Your task to perform on an android device: Open the calendar app, open the side menu, and click the "Day" option Image 0: 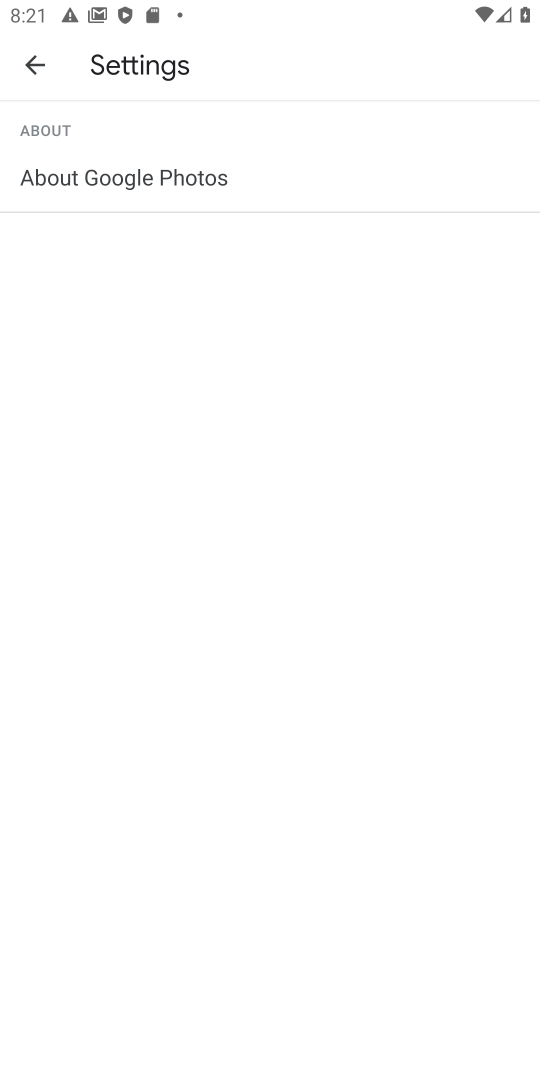
Step 0: press home button
Your task to perform on an android device: Open the calendar app, open the side menu, and click the "Day" option Image 1: 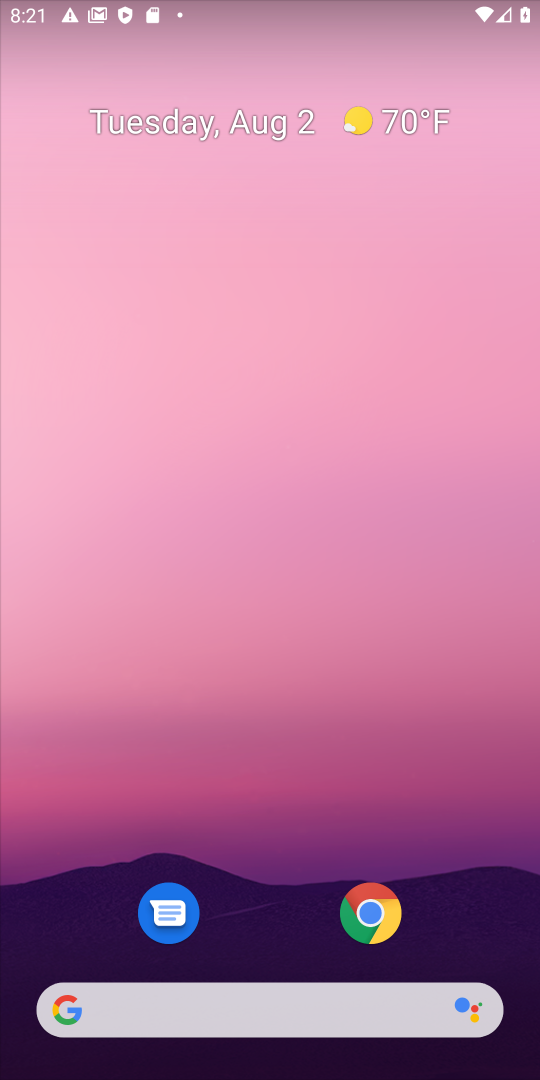
Step 1: drag from (294, 842) to (284, 399)
Your task to perform on an android device: Open the calendar app, open the side menu, and click the "Day" option Image 2: 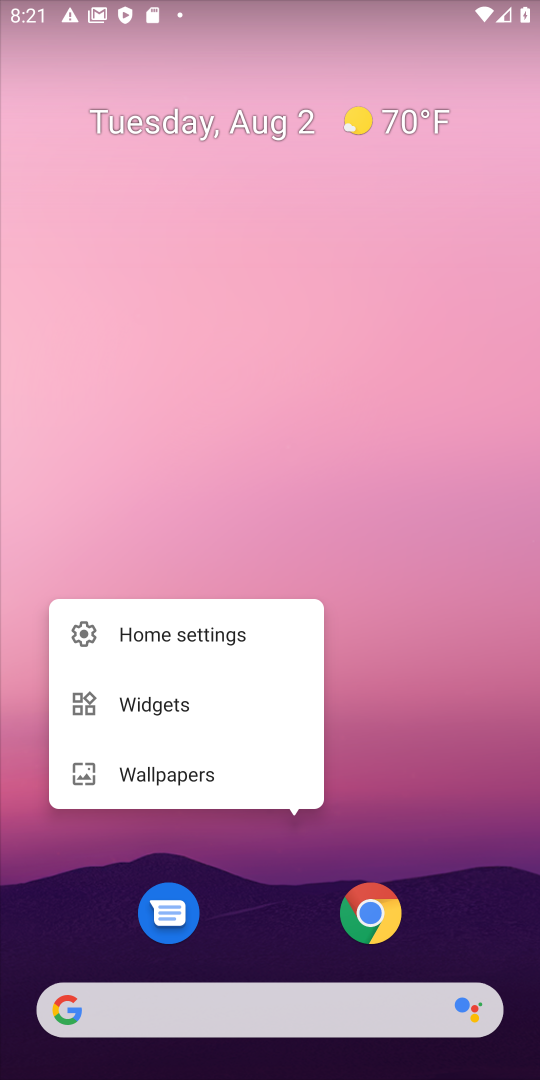
Step 2: click (284, 399)
Your task to perform on an android device: Open the calendar app, open the side menu, and click the "Day" option Image 3: 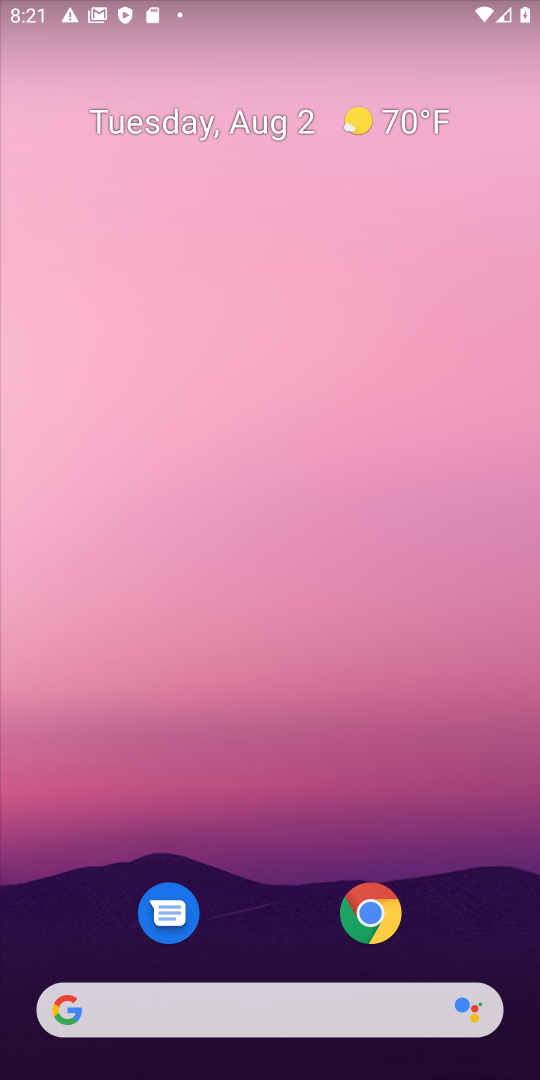
Step 3: click (427, 690)
Your task to perform on an android device: Open the calendar app, open the side menu, and click the "Day" option Image 4: 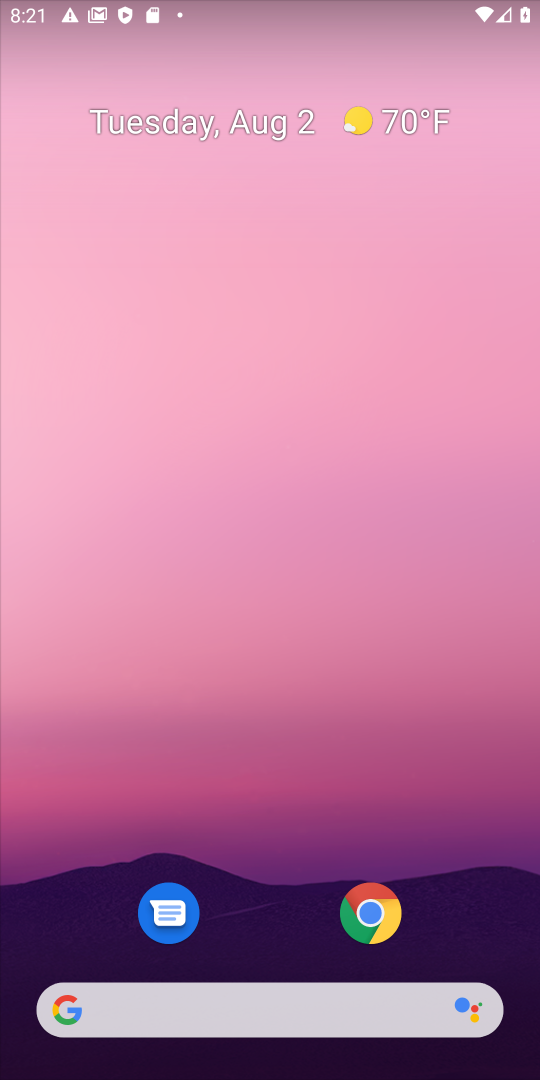
Step 4: drag from (258, 783) to (335, 351)
Your task to perform on an android device: Open the calendar app, open the side menu, and click the "Day" option Image 5: 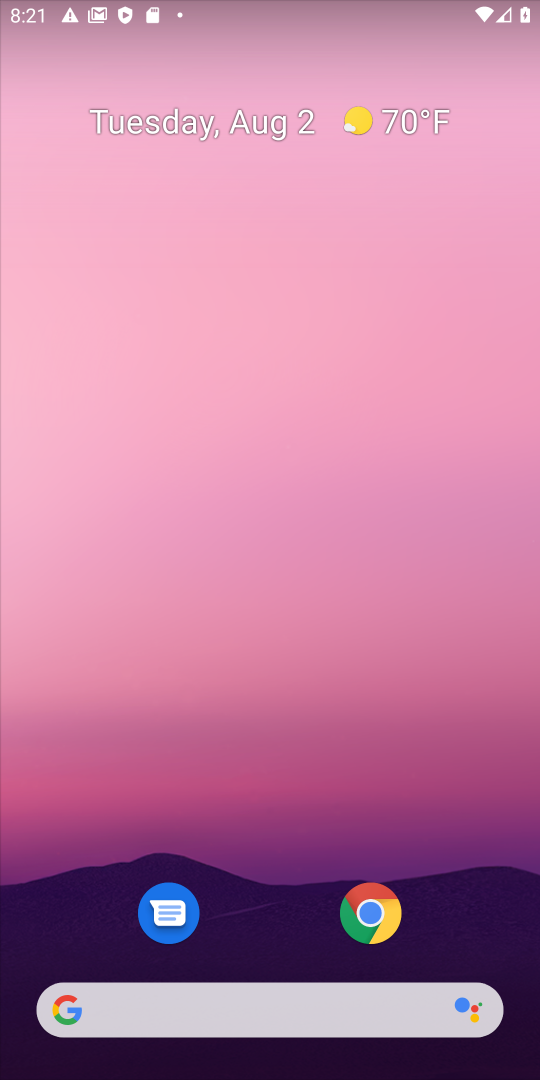
Step 5: drag from (260, 868) to (275, 458)
Your task to perform on an android device: Open the calendar app, open the side menu, and click the "Day" option Image 6: 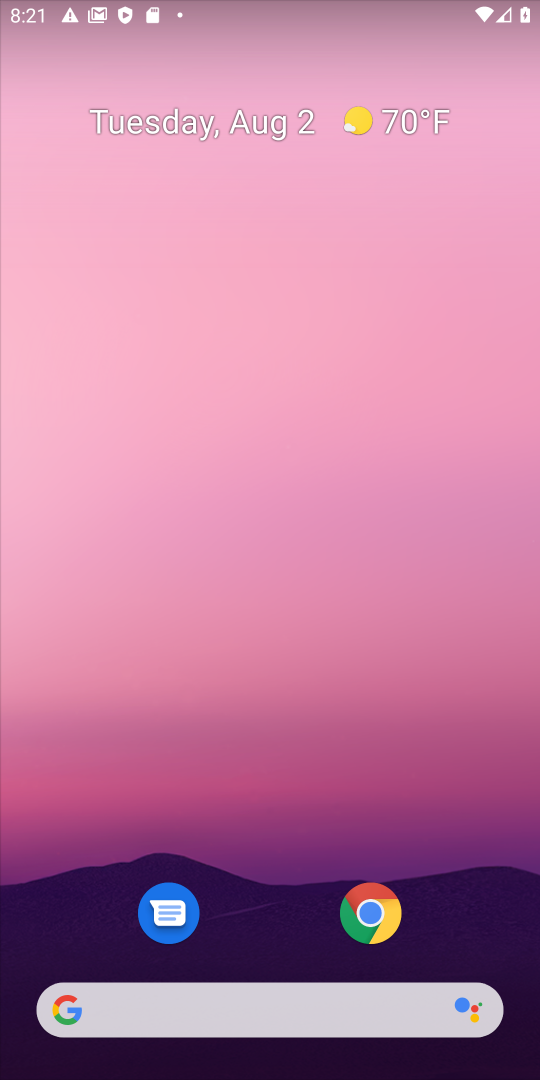
Step 6: drag from (275, 458) to (282, 162)
Your task to perform on an android device: Open the calendar app, open the side menu, and click the "Day" option Image 7: 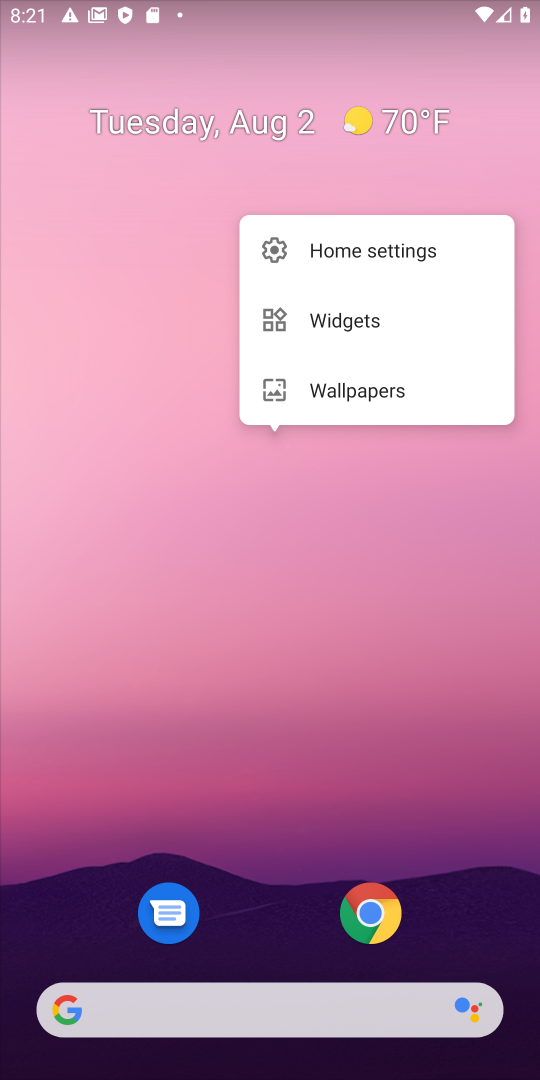
Step 7: click (277, 897)
Your task to perform on an android device: Open the calendar app, open the side menu, and click the "Day" option Image 8: 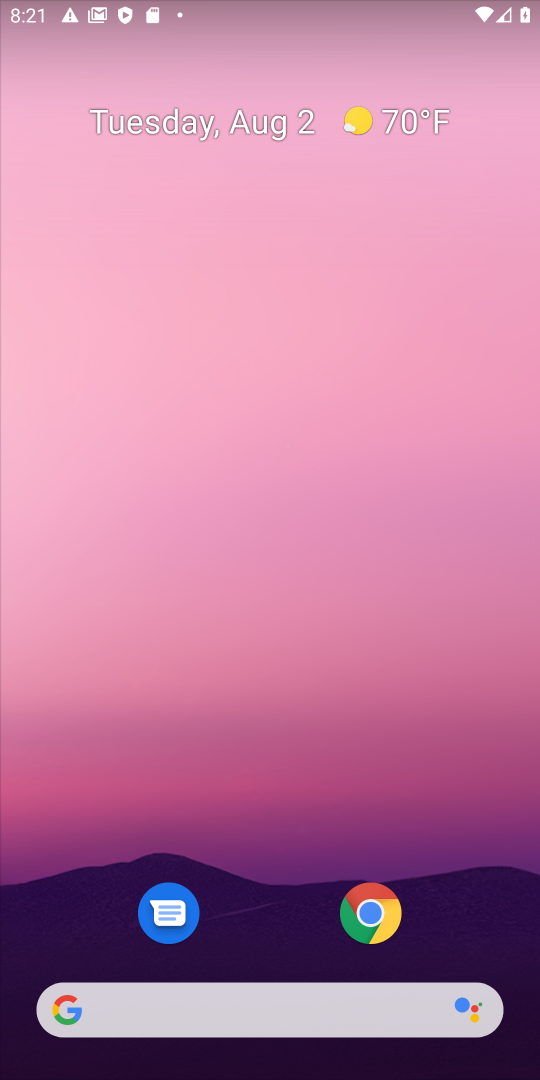
Step 8: drag from (273, 832) to (297, 399)
Your task to perform on an android device: Open the calendar app, open the side menu, and click the "Day" option Image 9: 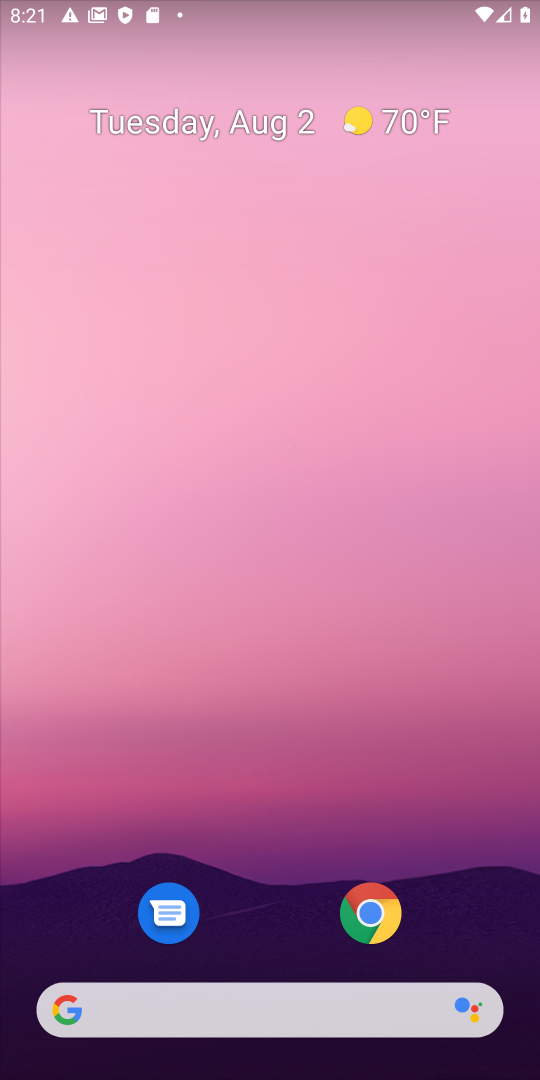
Step 9: drag from (291, 750) to (265, 212)
Your task to perform on an android device: Open the calendar app, open the side menu, and click the "Day" option Image 10: 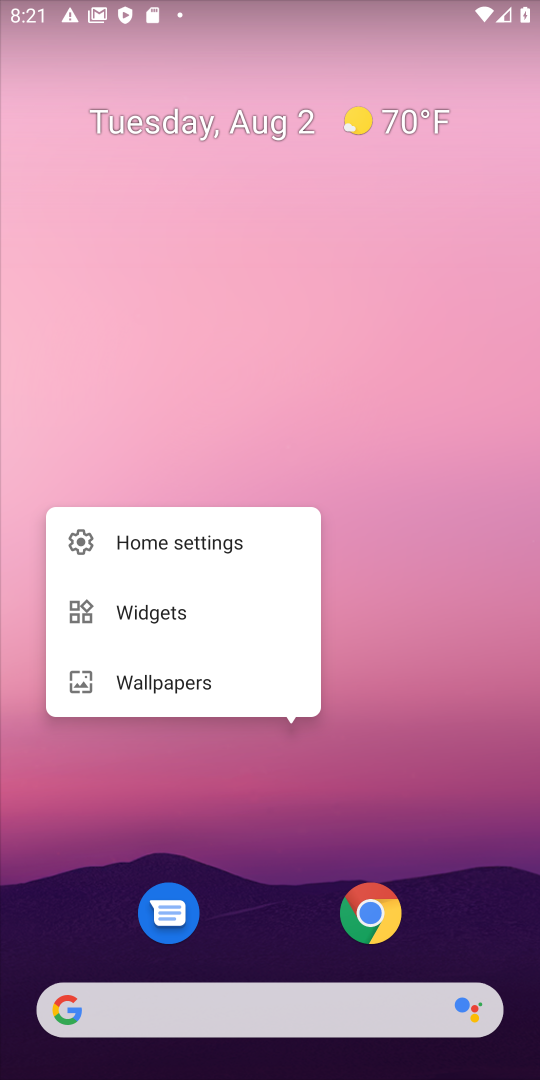
Step 10: click (330, 465)
Your task to perform on an android device: Open the calendar app, open the side menu, and click the "Day" option Image 11: 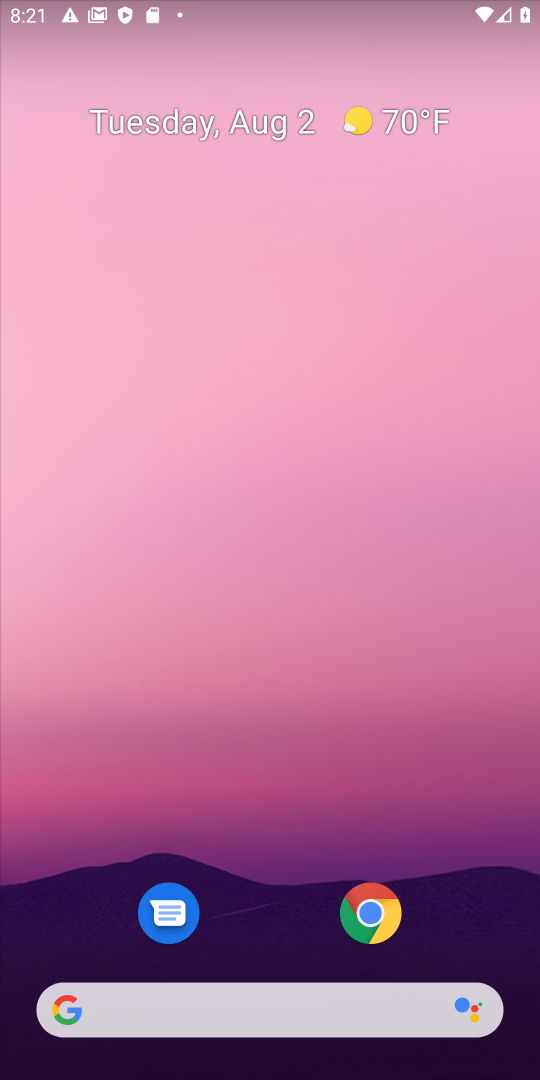
Step 11: drag from (328, 747) to (329, 3)
Your task to perform on an android device: Open the calendar app, open the side menu, and click the "Day" option Image 12: 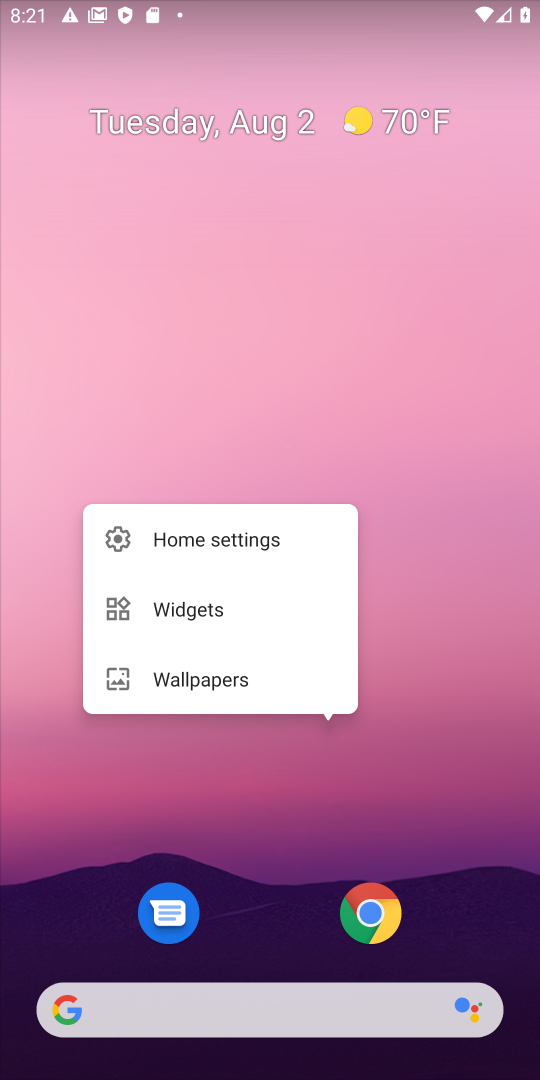
Step 12: click (444, 704)
Your task to perform on an android device: Open the calendar app, open the side menu, and click the "Day" option Image 13: 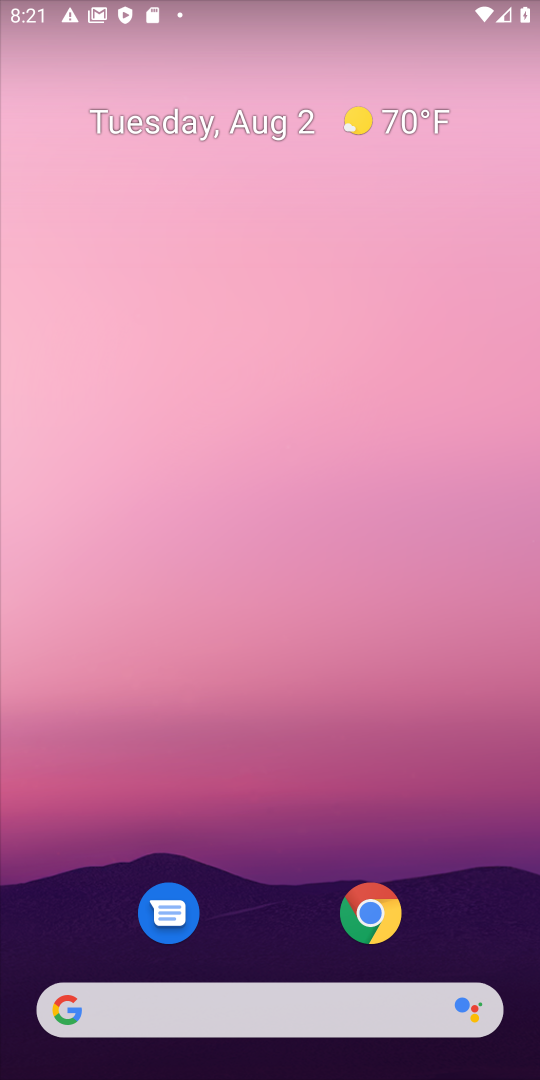
Step 13: drag from (324, 770) to (315, 437)
Your task to perform on an android device: Open the calendar app, open the side menu, and click the "Day" option Image 14: 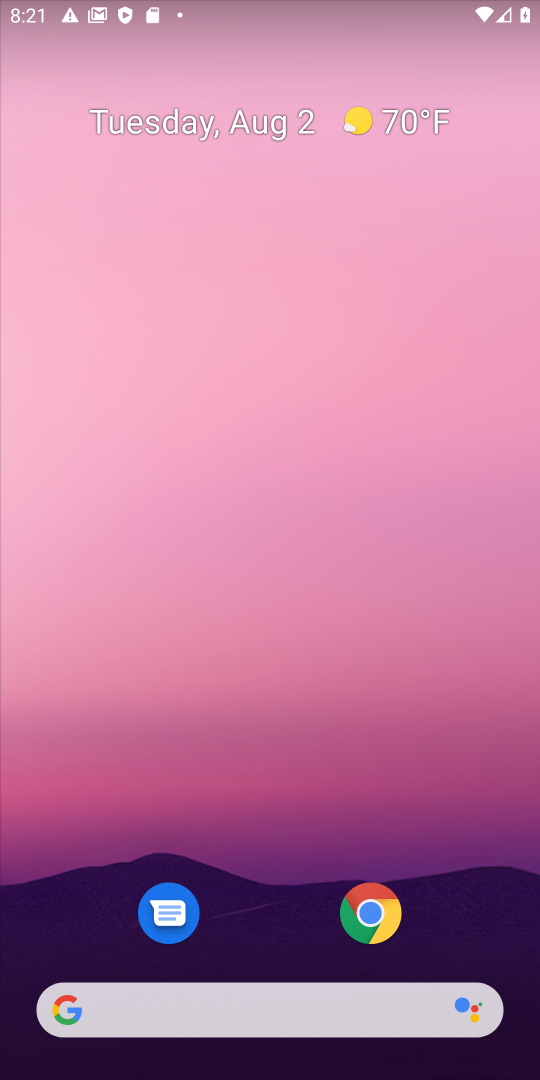
Step 14: drag from (286, 806) to (271, 233)
Your task to perform on an android device: Open the calendar app, open the side menu, and click the "Day" option Image 15: 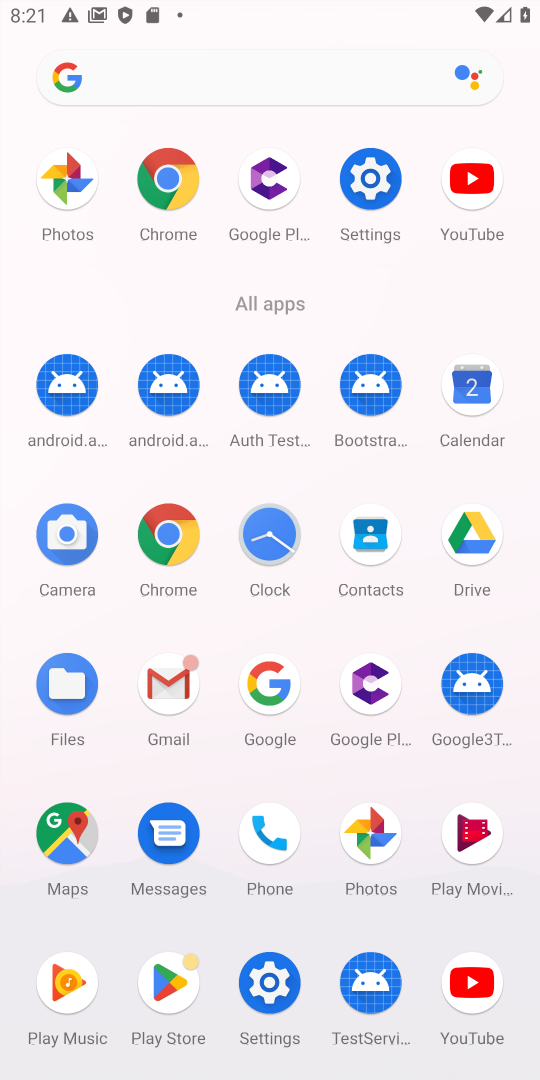
Step 15: click (469, 402)
Your task to perform on an android device: Open the calendar app, open the side menu, and click the "Day" option Image 16: 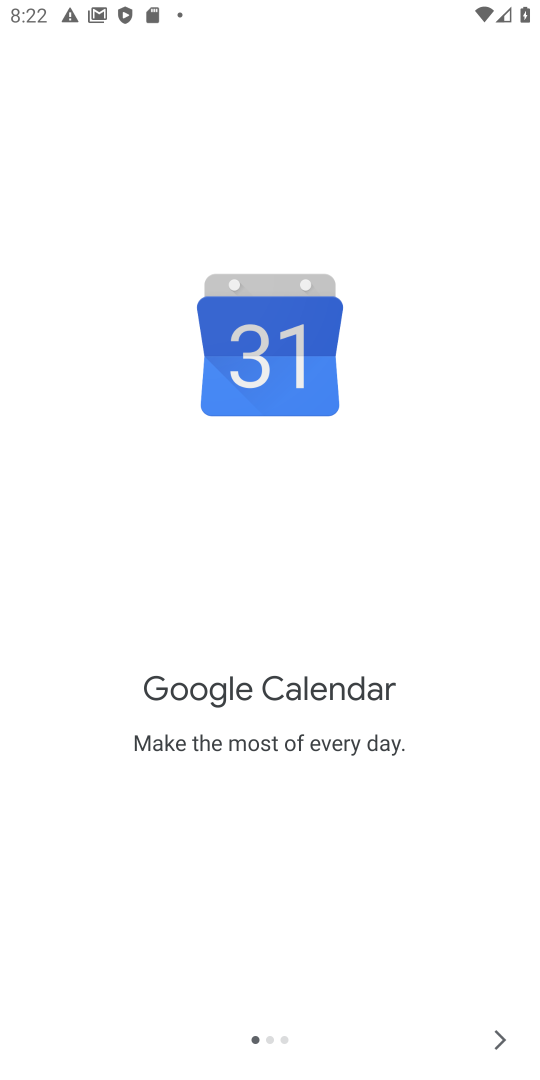
Step 16: click (498, 1036)
Your task to perform on an android device: Open the calendar app, open the side menu, and click the "Day" option Image 17: 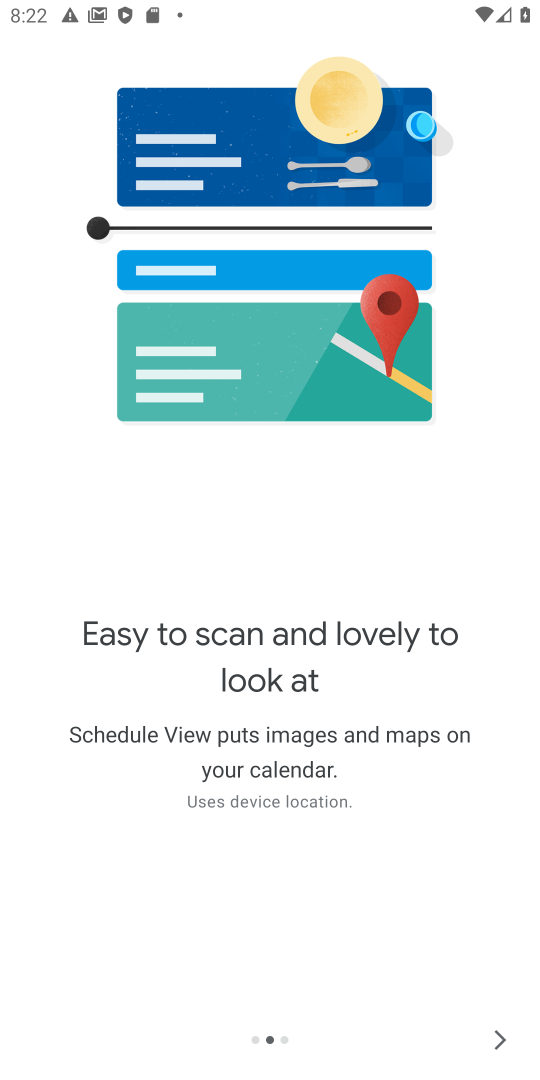
Step 17: click (498, 1036)
Your task to perform on an android device: Open the calendar app, open the side menu, and click the "Day" option Image 18: 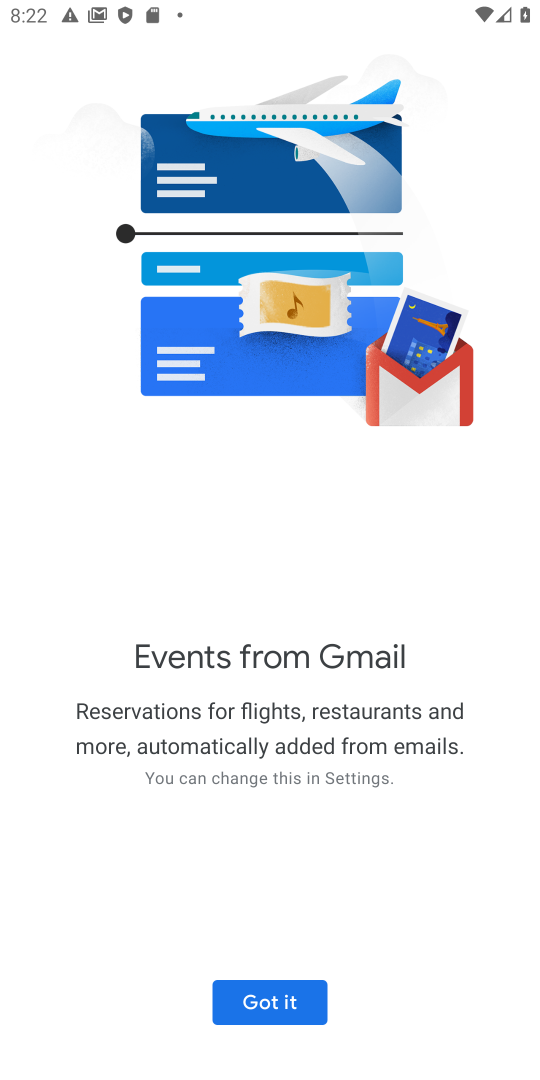
Step 18: click (498, 1036)
Your task to perform on an android device: Open the calendar app, open the side menu, and click the "Day" option Image 19: 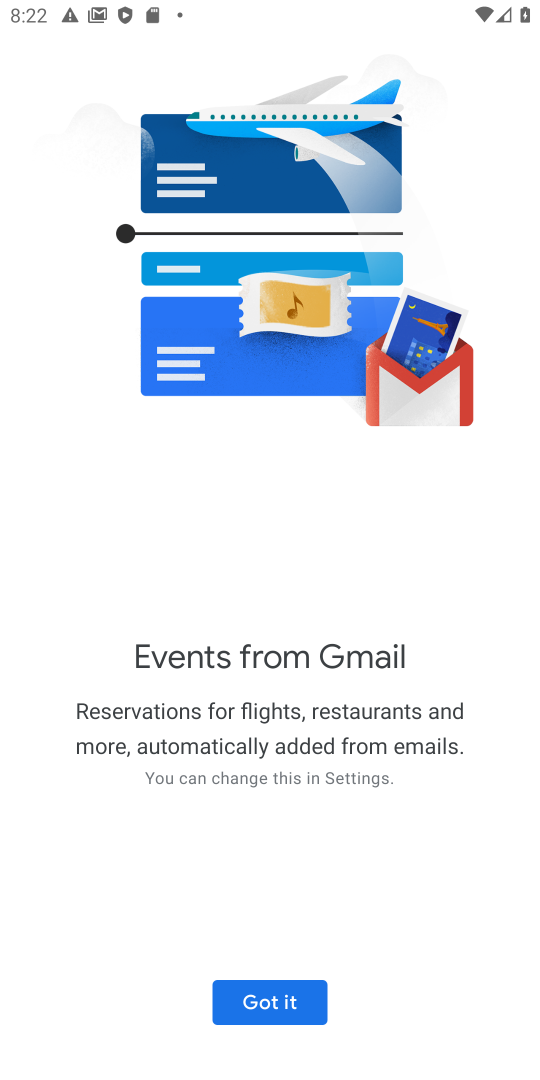
Step 19: click (235, 1002)
Your task to perform on an android device: Open the calendar app, open the side menu, and click the "Day" option Image 20: 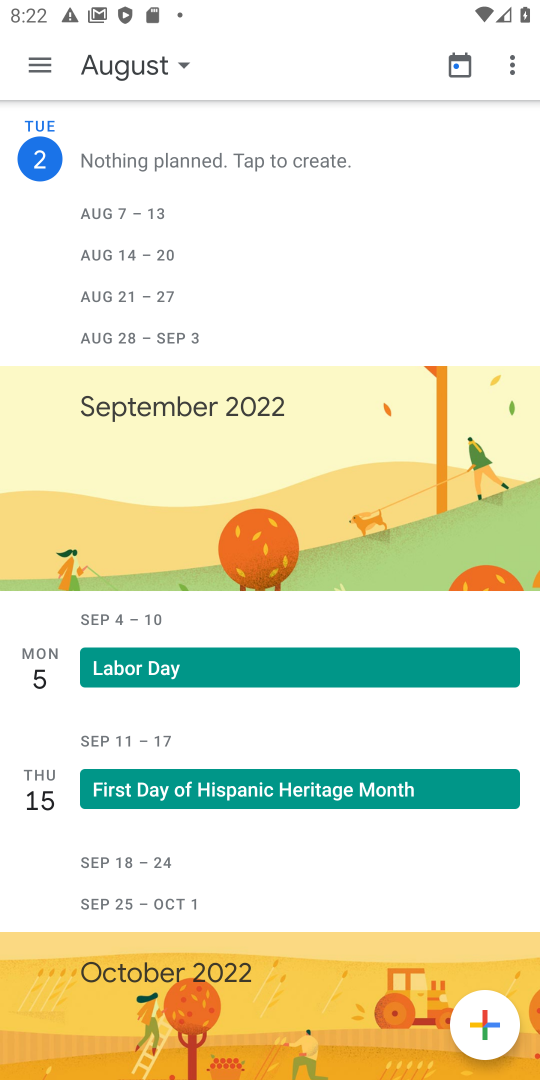
Step 20: click (51, 67)
Your task to perform on an android device: Open the calendar app, open the side menu, and click the "Day" option Image 21: 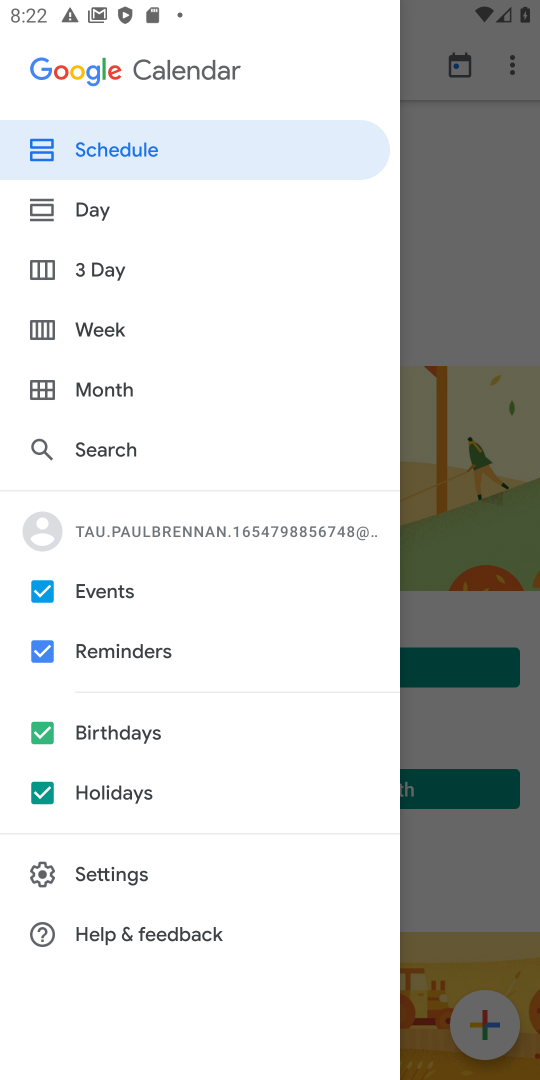
Step 21: click (76, 211)
Your task to perform on an android device: Open the calendar app, open the side menu, and click the "Day" option Image 22: 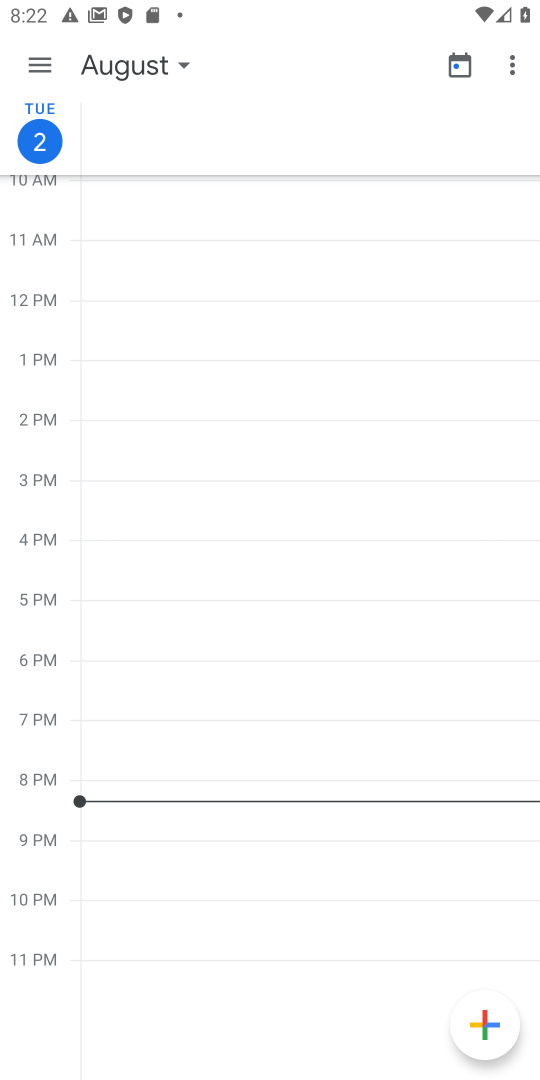
Step 22: task complete